Your task to perform on an android device: Go to Yahoo.com Image 0: 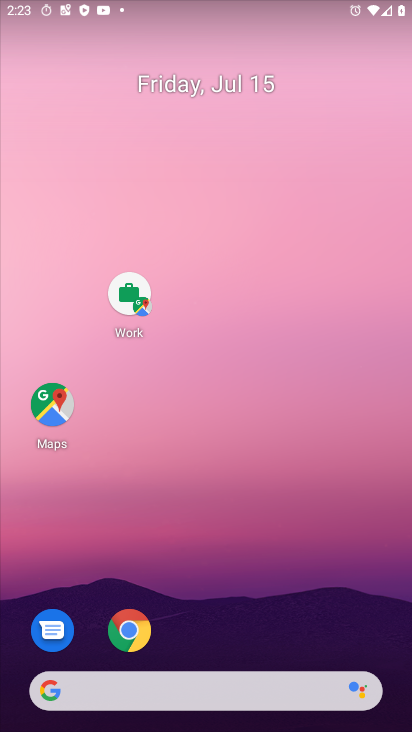
Step 0: drag from (231, 596) to (259, 158)
Your task to perform on an android device: Go to Yahoo.com Image 1: 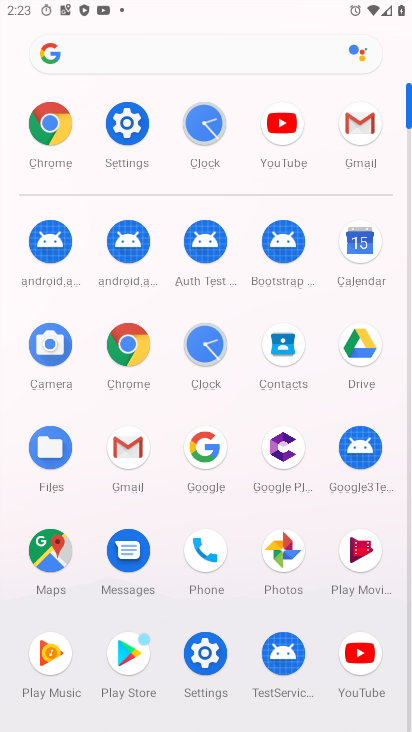
Step 1: click (115, 359)
Your task to perform on an android device: Go to Yahoo.com Image 2: 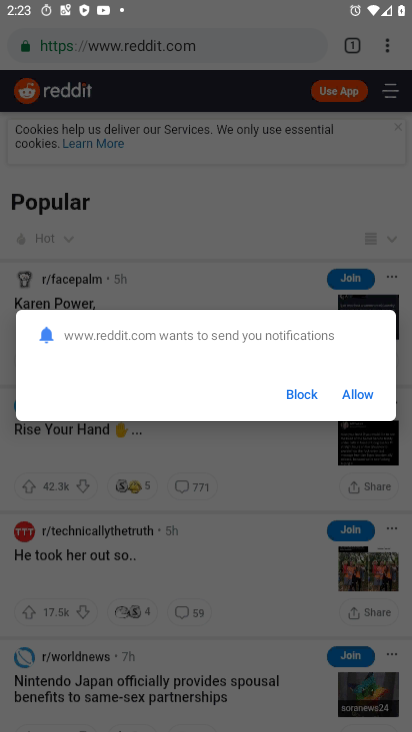
Step 2: click (346, 56)
Your task to perform on an android device: Go to Yahoo.com Image 3: 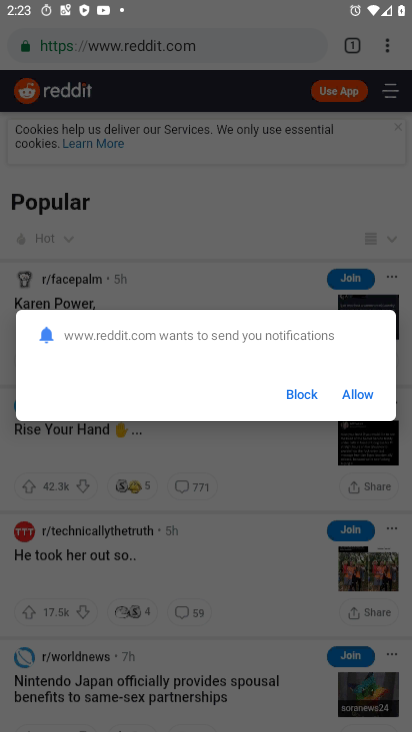
Step 3: click (367, 384)
Your task to perform on an android device: Go to Yahoo.com Image 4: 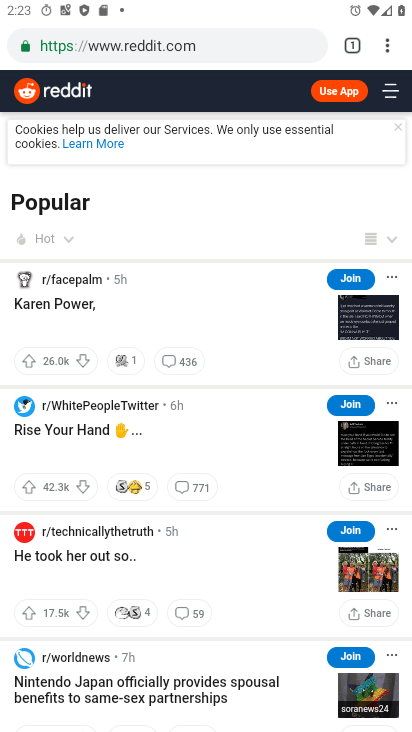
Step 4: click (349, 45)
Your task to perform on an android device: Go to Yahoo.com Image 5: 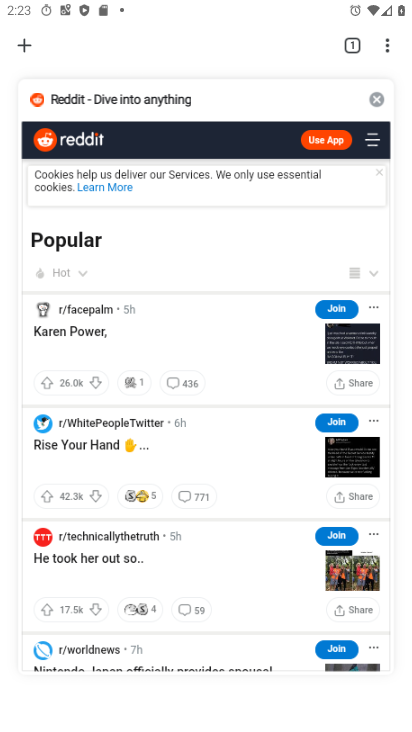
Step 5: click (24, 43)
Your task to perform on an android device: Go to Yahoo.com Image 6: 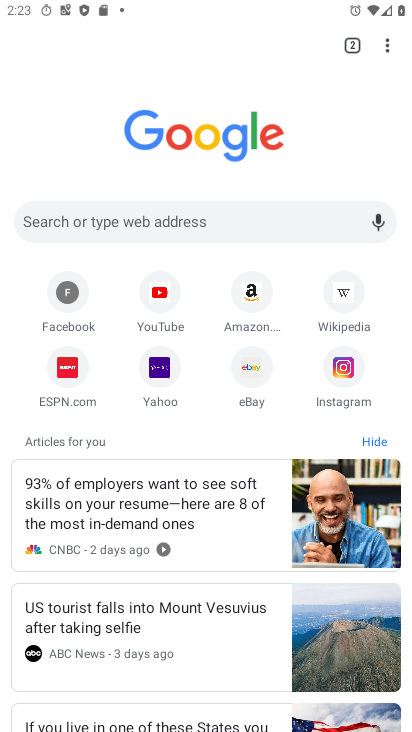
Step 6: click (161, 378)
Your task to perform on an android device: Go to Yahoo.com Image 7: 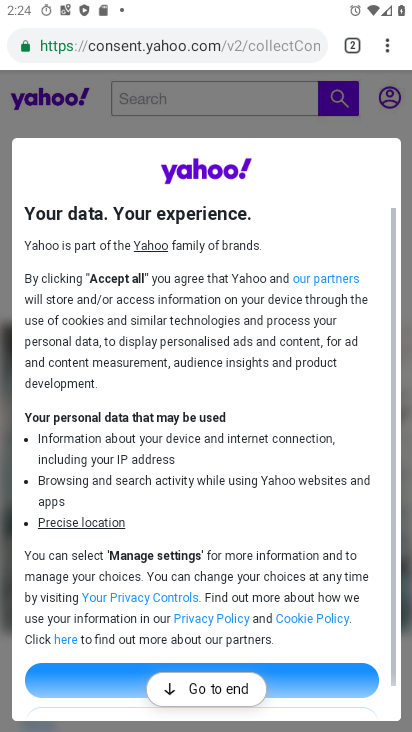
Step 7: task complete